Your task to perform on an android device: Open Google Image 0: 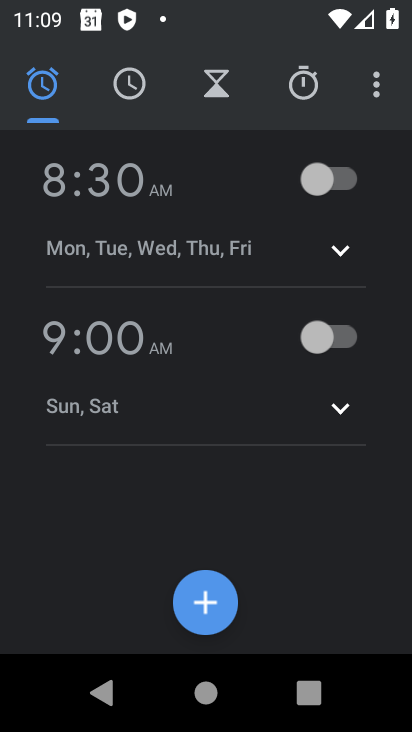
Step 0: press home button
Your task to perform on an android device: Open Google Image 1: 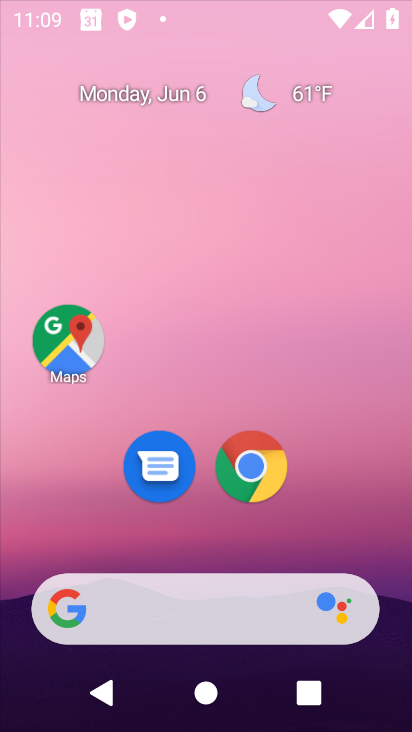
Step 1: drag from (335, 598) to (331, 248)
Your task to perform on an android device: Open Google Image 2: 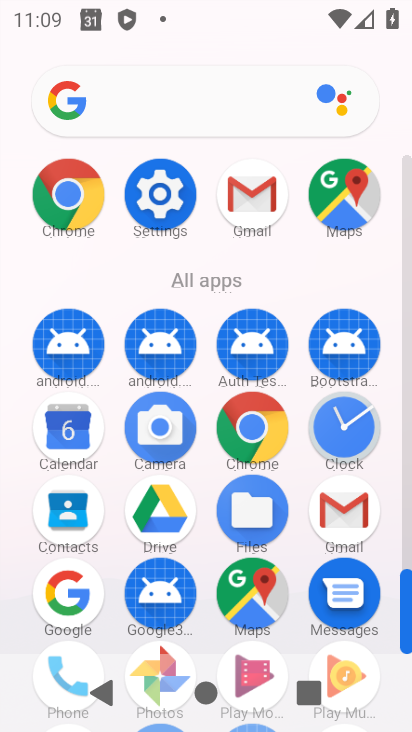
Step 2: click (74, 592)
Your task to perform on an android device: Open Google Image 3: 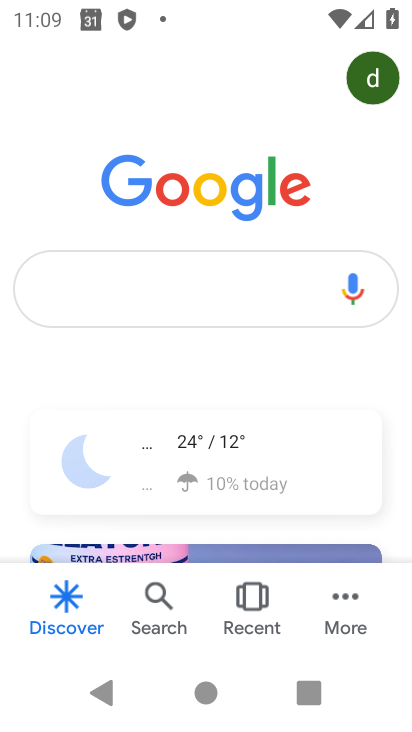
Step 3: task complete